Your task to perform on an android device: Go to Reddit.com Image 0: 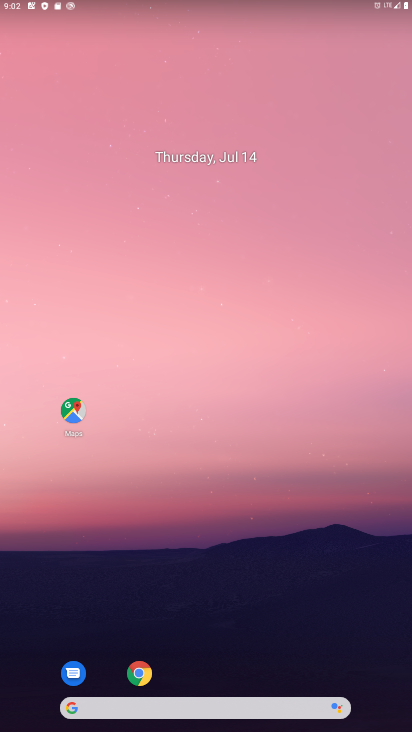
Step 0: click (138, 674)
Your task to perform on an android device: Go to Reddit.com Image 1: 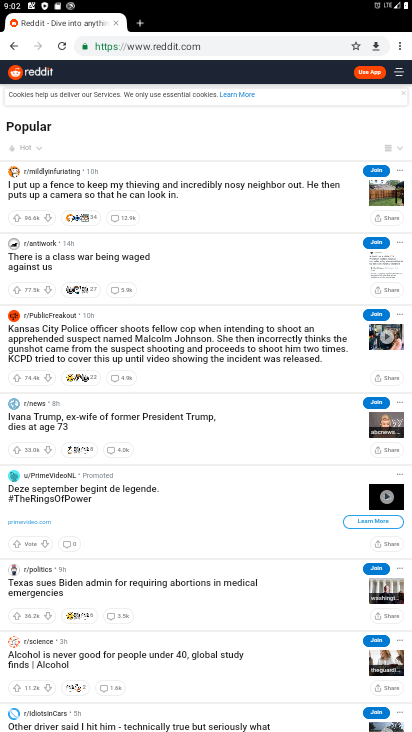
Step 1: click (311, 46)
Your task to perform on an android device: Go to Reddit.com Image 2: 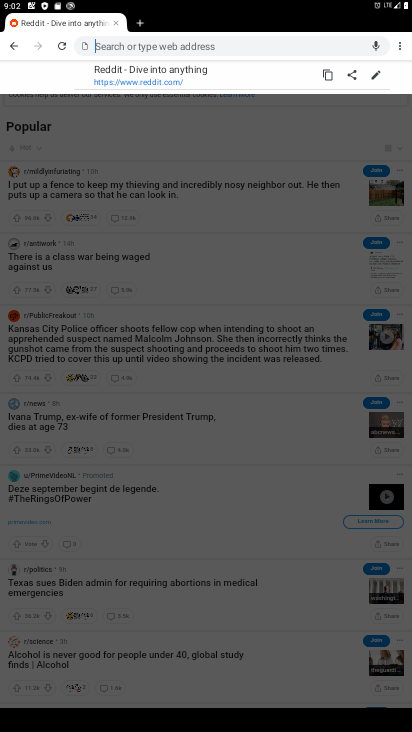
Step 2: type "Reddit.com"
Your task to perform on an android device: Go to Reddit.com Image 3: 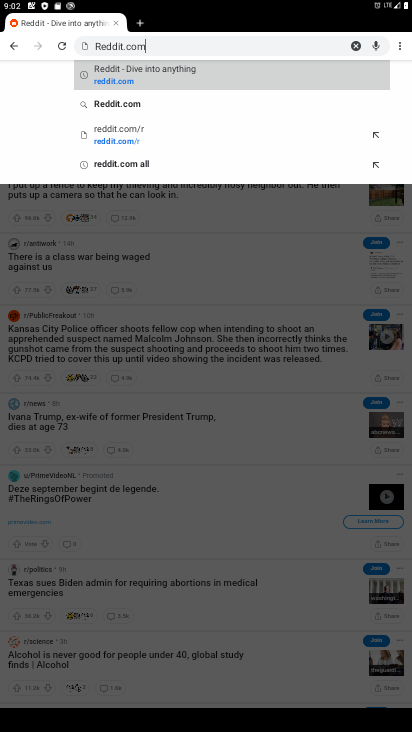
Step 3: type ""
Your task to perform on an android device: Go to Reddit.com Image 4: 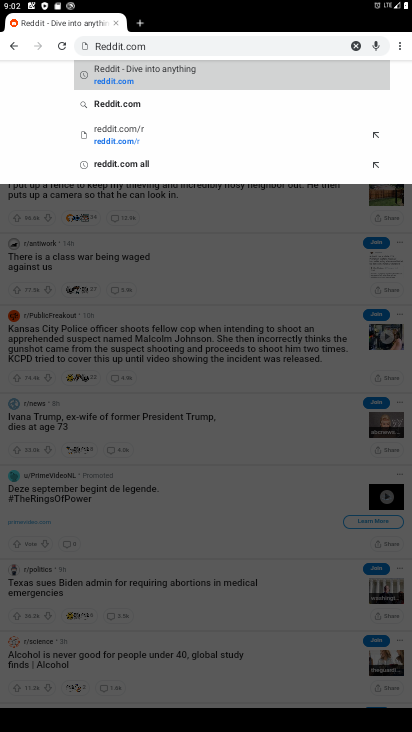
Step 4: click (137, 102)
Your task to perform on an android device: Go to Reddit.com Image 5: 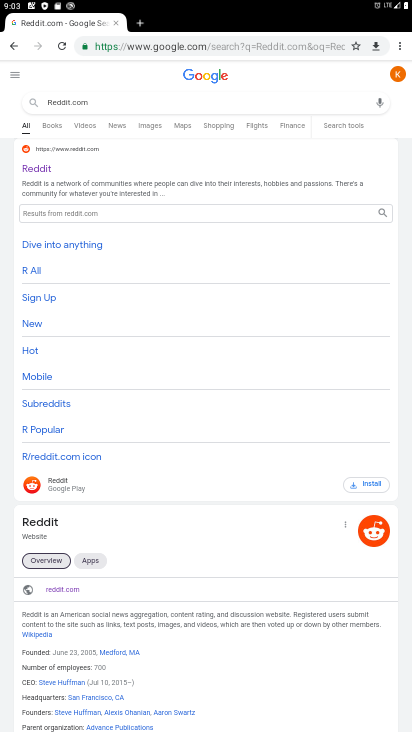
Step 5: click (35, 169)
Your task to perform on an android device: Go to Reddit.com Image 6: 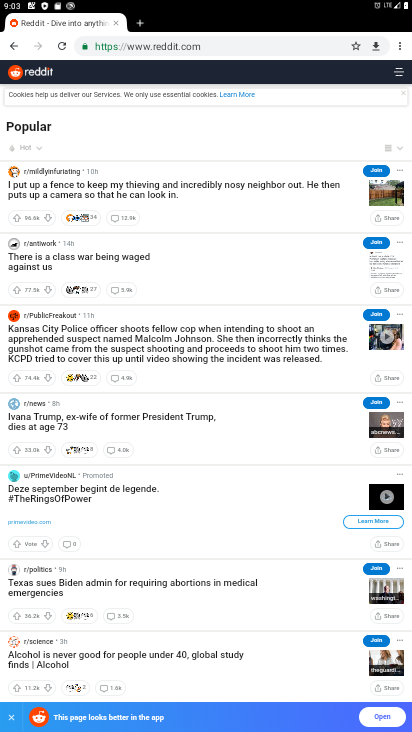
Step 6: task complete